Your task to perform on an android device: install app "Pandora - Music & Podcasts" Image 0: 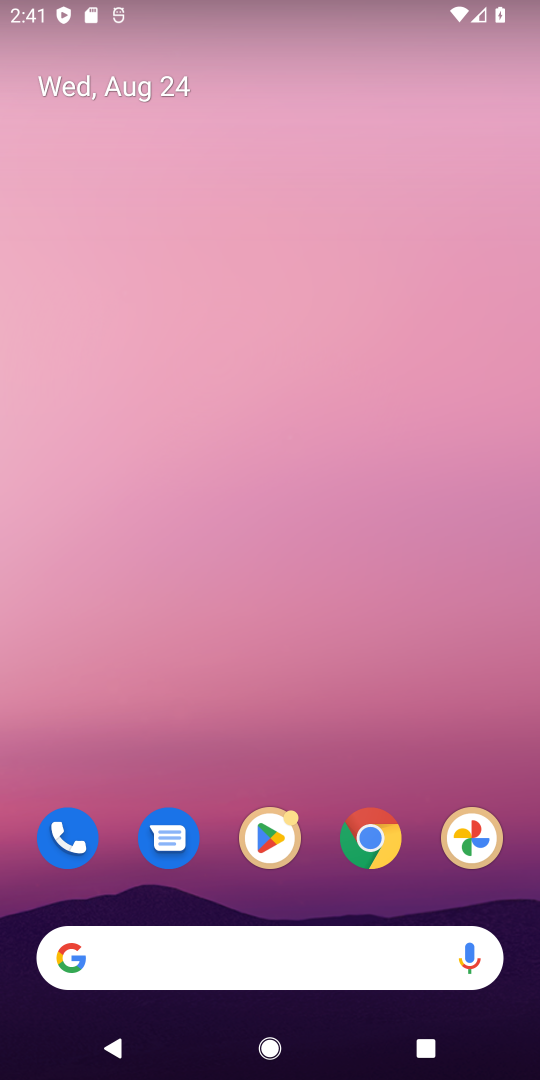
Step 0: press home button
Your task to perform on an android device: install app "Pandora - Music & Podcasts" Image 1: 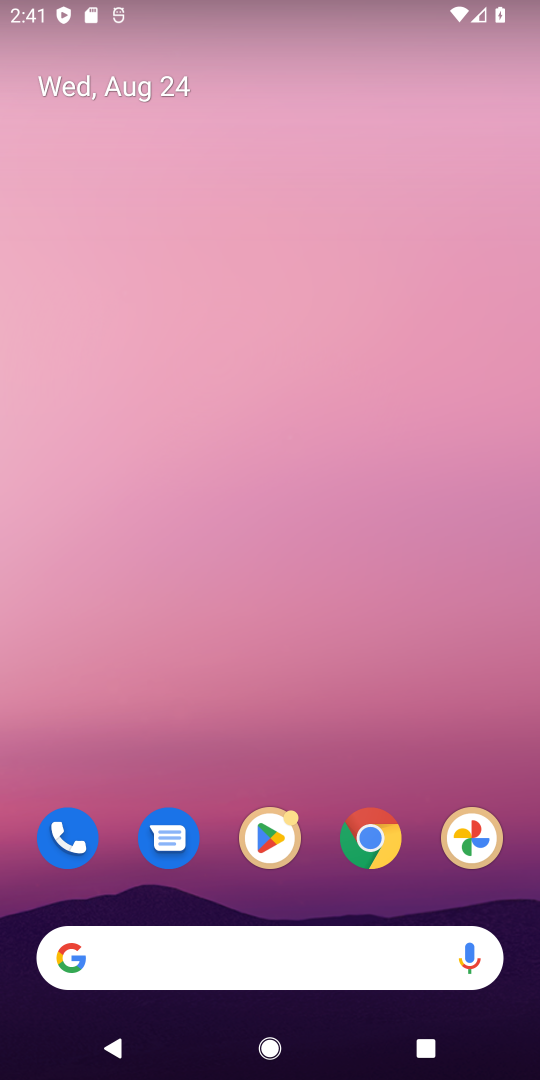
Step 1: drag from (423, 733) to (401, 76)
Your task to perform on an android device: install app "Pandora - Music & Podcasts" Image 2: 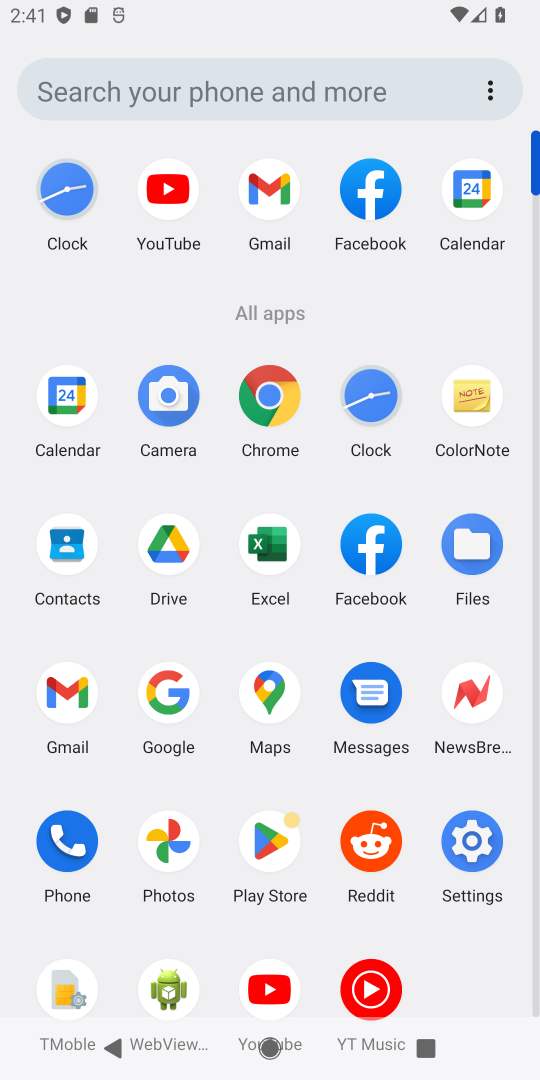
Step 2: click (269, 849)
Your task to perform on an android device: install app "Pandora - Music & Podcasts" Image 3: 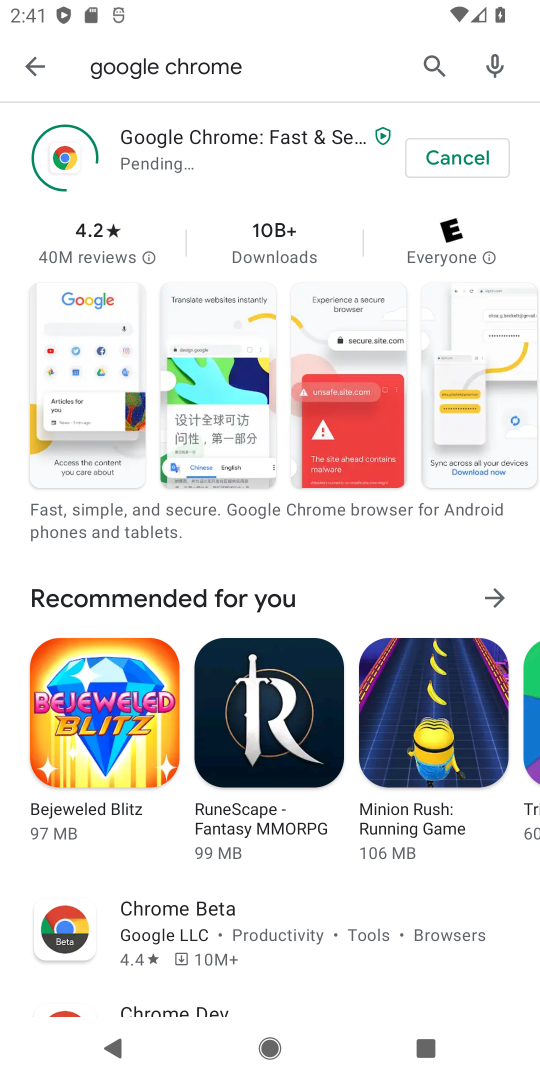
Step 3: press back button
Your task to perform on an android device: install app "Pandora - Music & Podcasts" Image 4: 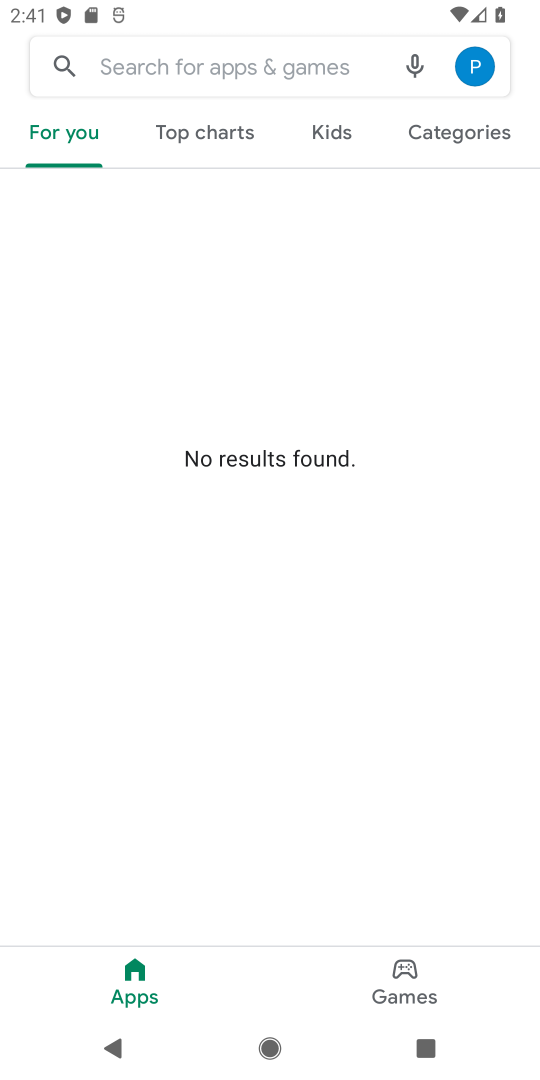
Step 4: click (288, 68)
Your task to perform on an android device: install app "Pandora - Music & Podcasts" Image 5: 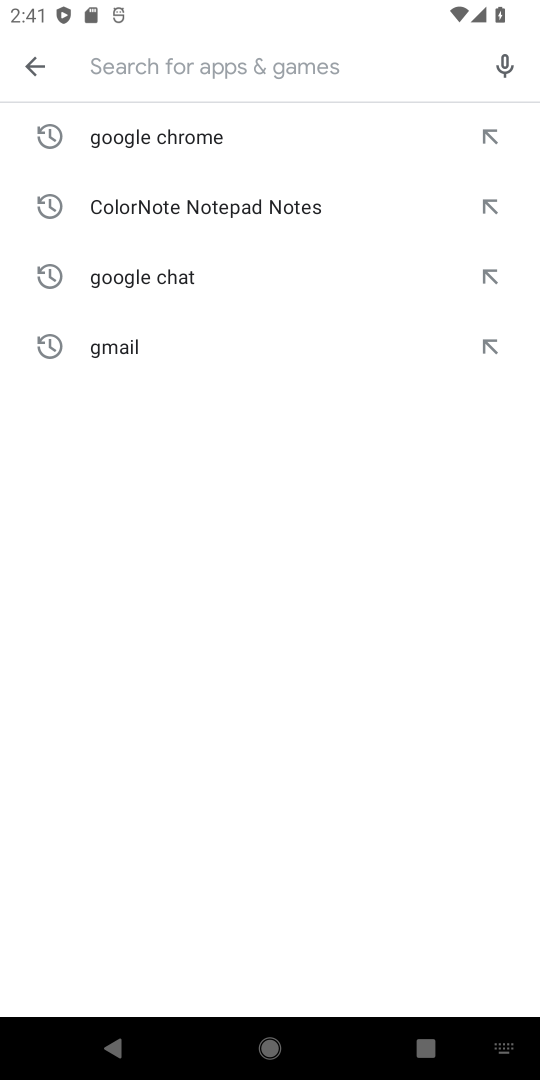
Step 5: type "Pandora - Music & Podcasts"
Your task to perform on an android device: install app "Pandora - Music & Podcasts" Image 6: 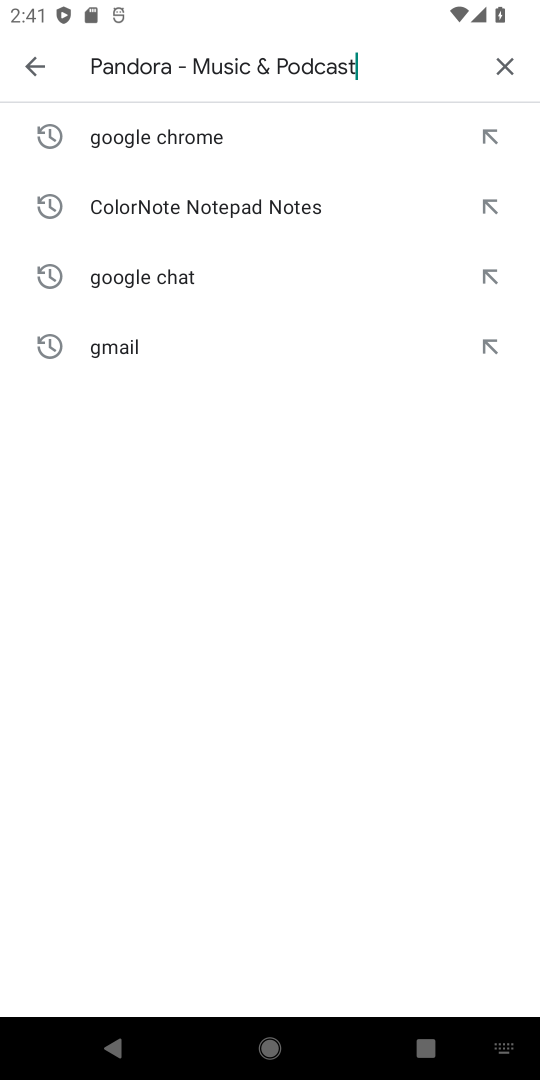
Step 6: press enter
Your task to perform on an android device: install app "Pandora - Music & Podcasts" Image 7: 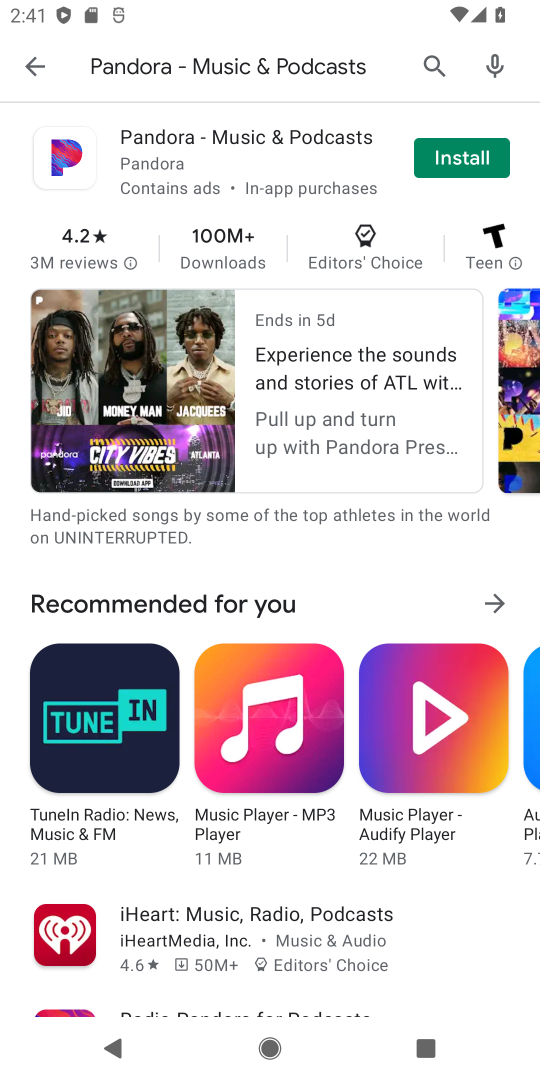
Step 7: click (453, 165)
Your task to perform on an android device: install app "Pandora - Music & Podcasts" Image 8: 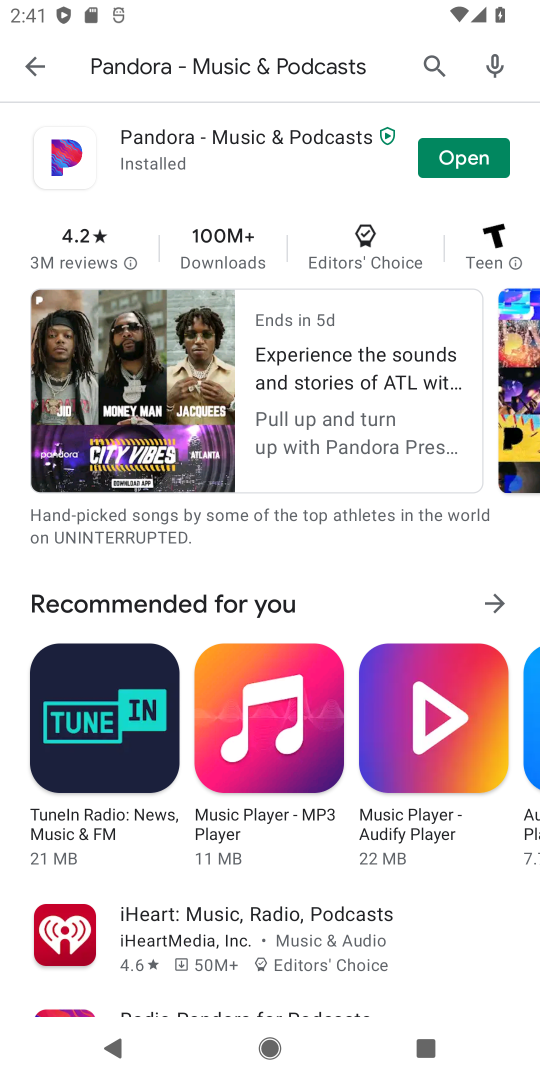
Step 8: task complete